Your task to perform on an android device: show emergency info Image 0: 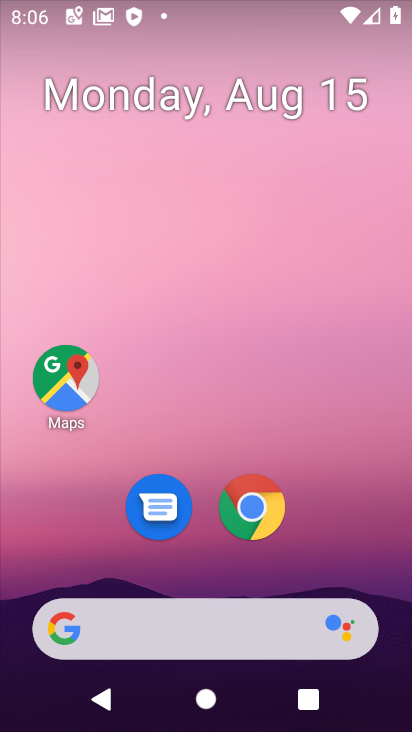
Step 0: drag from (291, 572) to (296, 43)
Your task to perform on an android device: show emergency info Image 1: 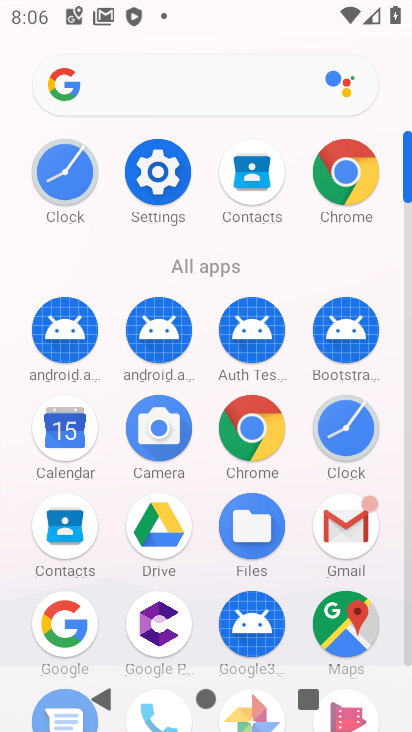
Step 1: click (136, 191)
Your task to perform on an android device: show emergency info Image 2: 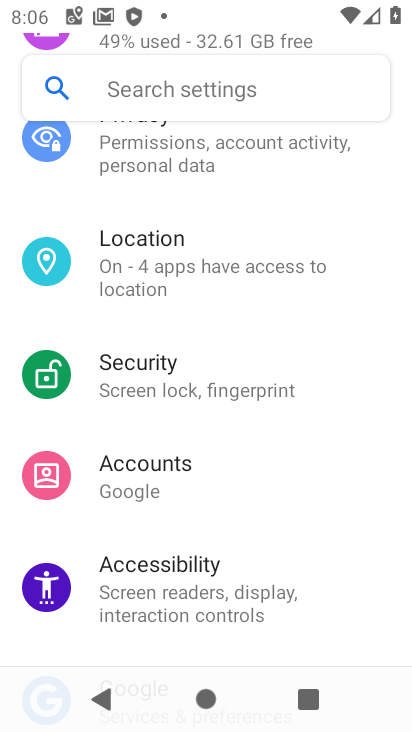
Step 2: drag from (92, 608) to (56, 121)
Your task to perform on an android device: show emergency info Image 3: 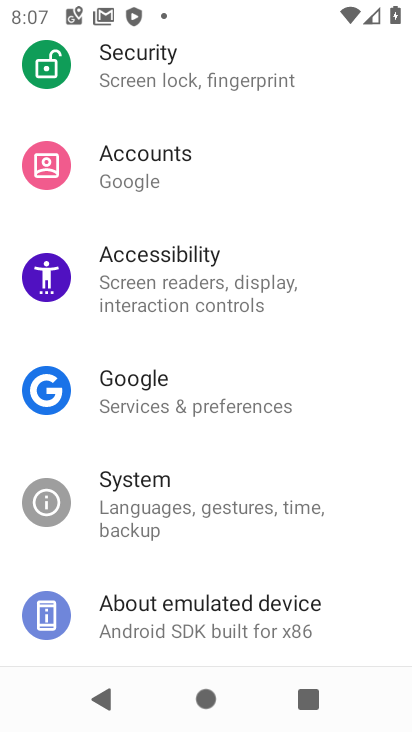
Step 3: click (216, 621)
Your task to perform on an android device: show emergency info Image 4: 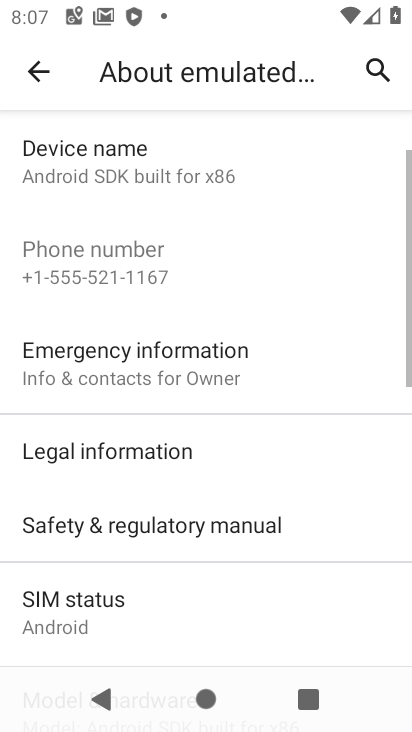
Step 4: click (209, 391)
Your task to perform on an android device: show emergency info Image 5: 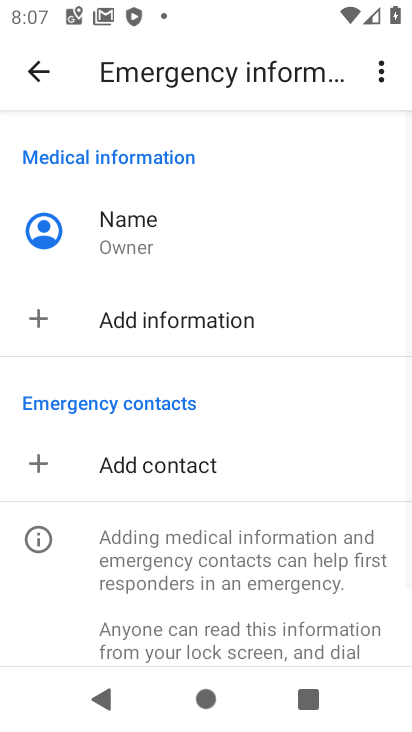
Step 5: task complete